Your task to perform on an android device: Open Amazon Image 0: 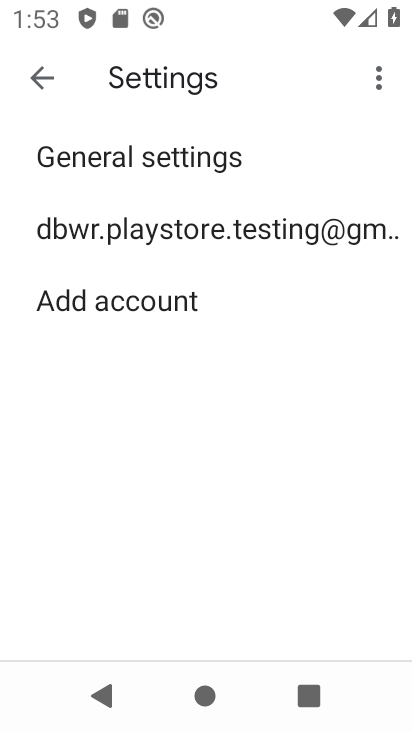
Step 0: press home button
Your task to perform on an android device: Open Amazon Image 1: 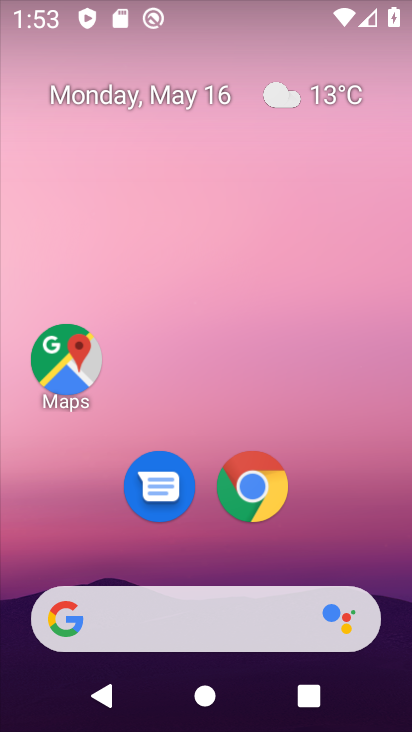
Step 1: drag from (382, 516) to (411, 0)
Your task to perform on an android device: Open Amazon Image 2: 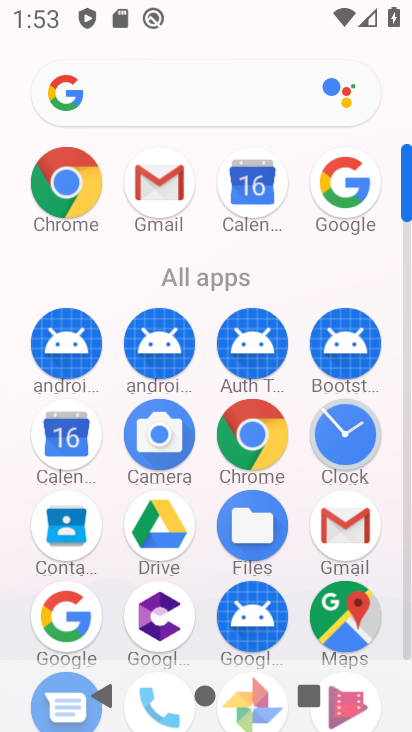
Step 2: click (70, 193)
Your task to perform on an android device: Open Amazon Image 3: 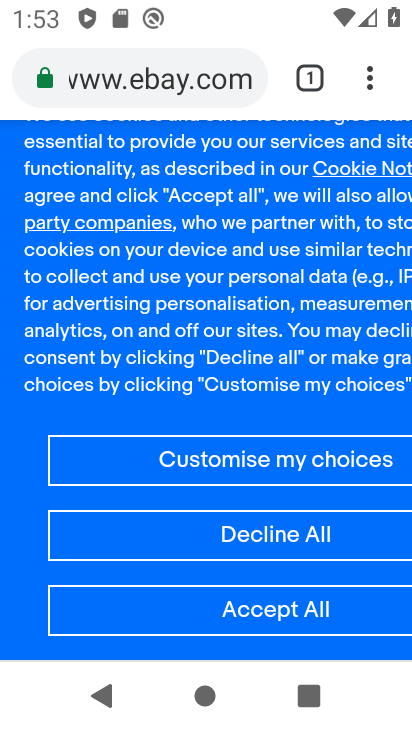
Step 3: click (149, 66)
Your task to perform on an android device: Open Amazon Image 4: 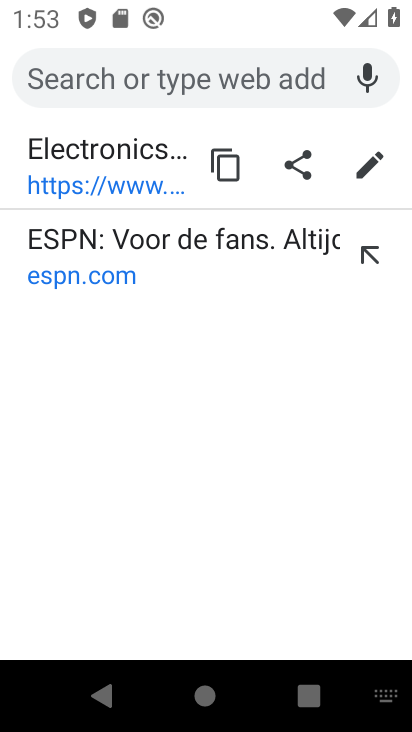
Step 4: type "amazon"
Your task to perform on an android device: Open Amazon Image 5: 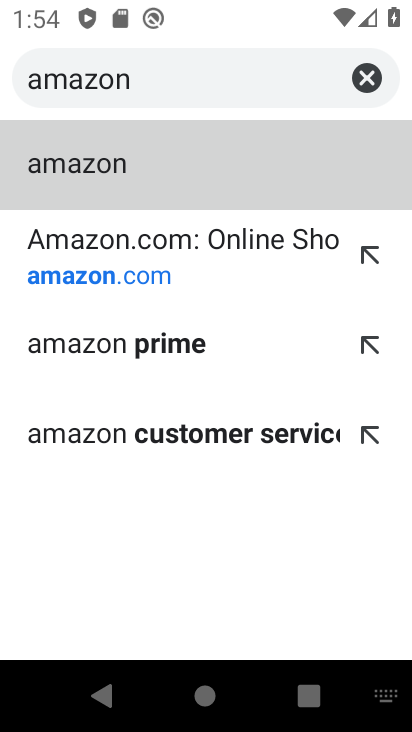
Step 5: click (118, 249)
Your task to perform on an android device: Open Amazon Image 6: 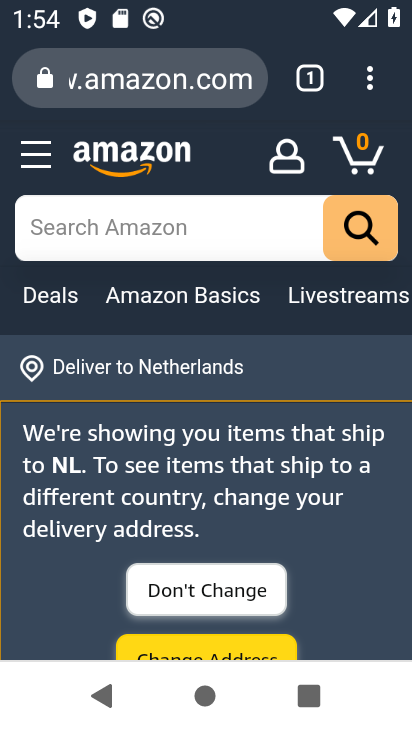
Step 6: task complete